Your task to perform on an android device: find photos in the google photos app Image 0: 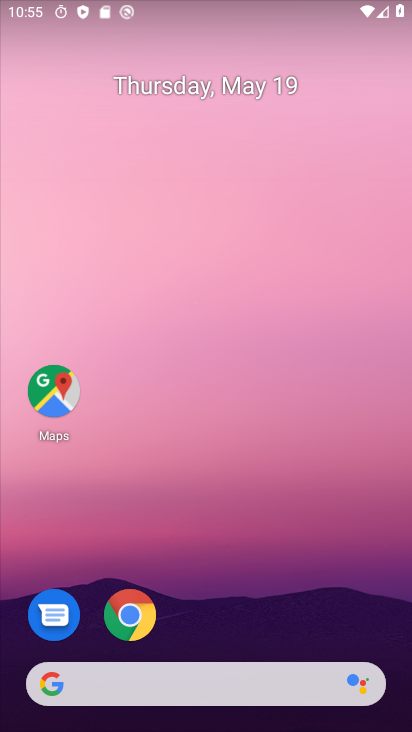
Step 0: drag from (356, 562) to (224, 163)
Your task to perform on an android device: find photos in the google photos app Image 1: 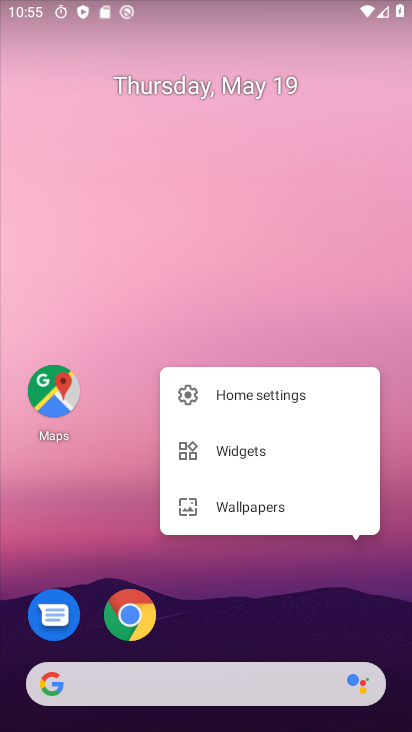
Step 1: click (131, 492)
Your task to perform on an android device: find photos in the google photos app Image 2: 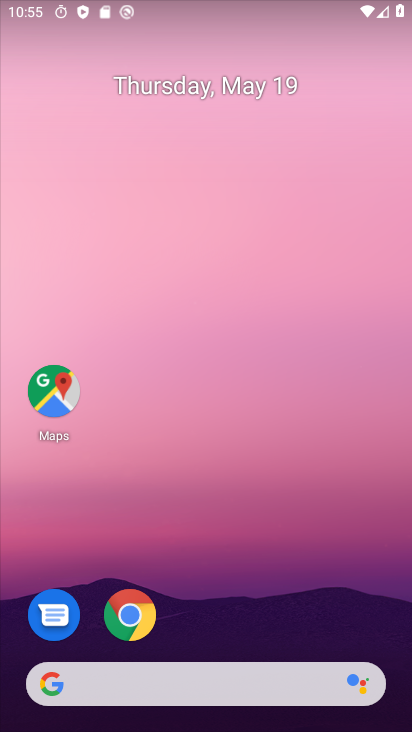
Step 2: drag from (257, 569) to (158, 77)
Your task to perform on an android device: find photos in the google photos app Image 3: 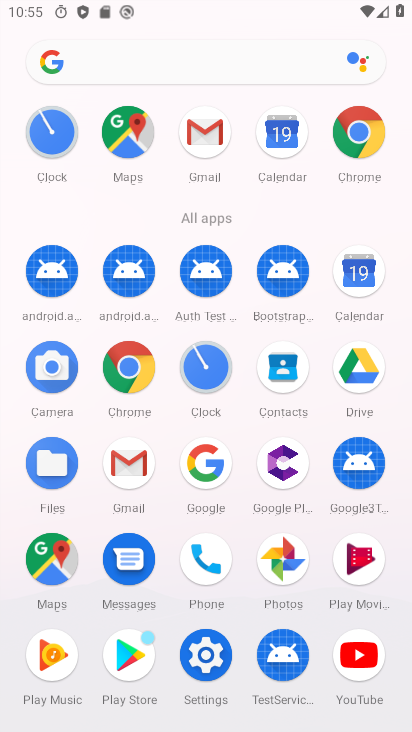
Step 3: click (284, 554)
Your task to perform on an android device: find photos in the google photos app Image 4: 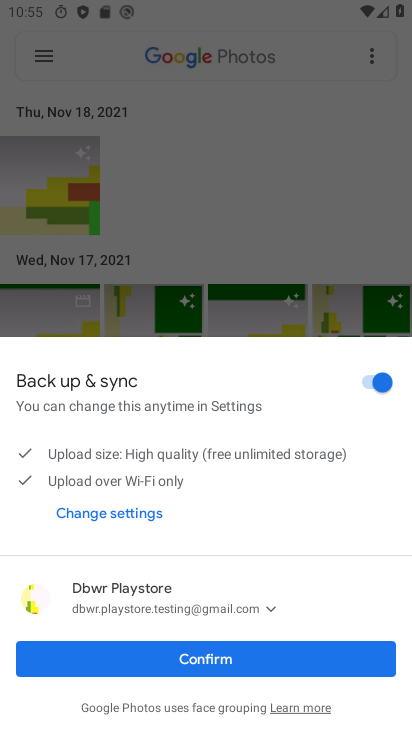
Step 4: click (107, 672)
Your task to perform on an android device: find photos in the google photos app Image 5: 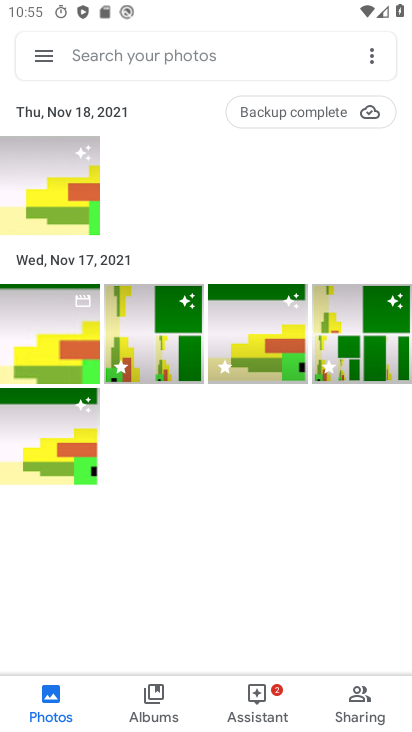
Step 5: task complete